Your task to perform on an android device: What's the weather going to be tomorrow? Image 0: 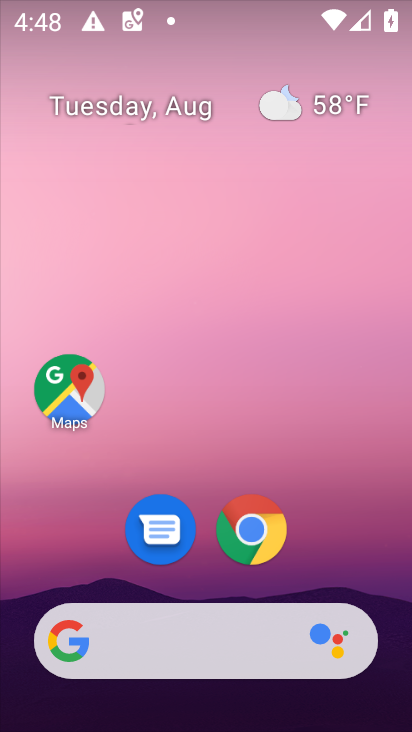
Step 0: drag from (208, 449) to (253, 102)
Your task to perform on an android device: What's the weather going to be tomorrow? Image 1: 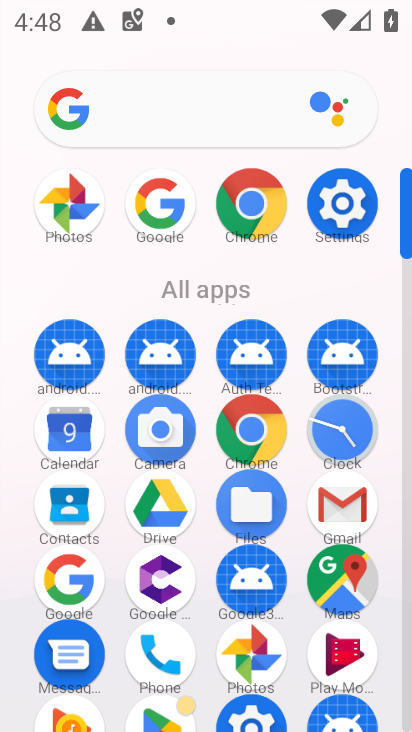
Step 1: click (165, 207)
Your task to perform on an android device: What's the weather going to be tomorrow? Image 2: 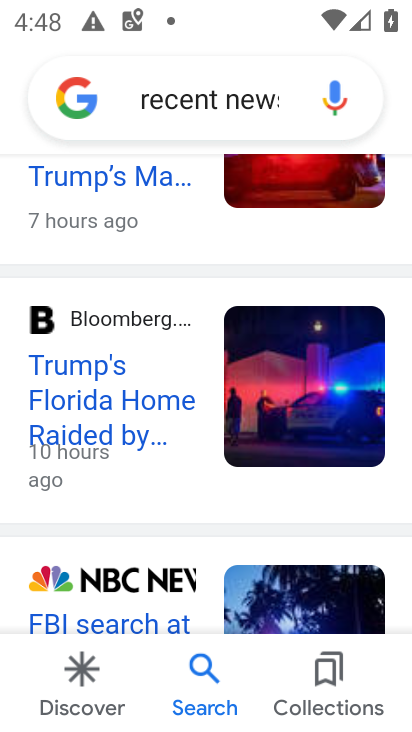
Step 2: click (226, 101)
Your task to perform on an android device: What's the weather going to be tomorrow? Image 3: 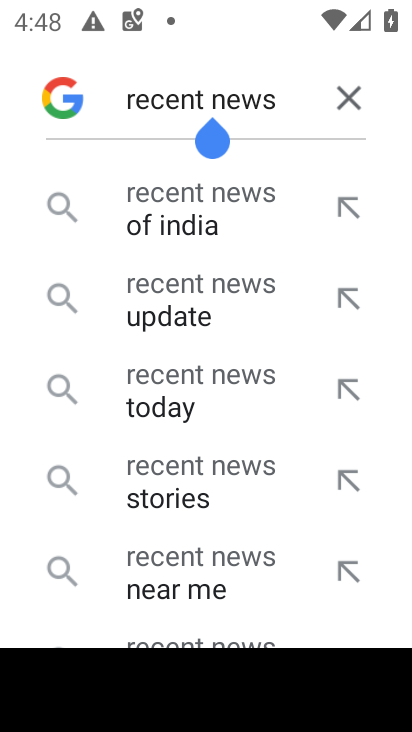
Step 3: click (339, 101)
Your task to perform on an android device: What's the weather going to be tomorrow? Image 4: 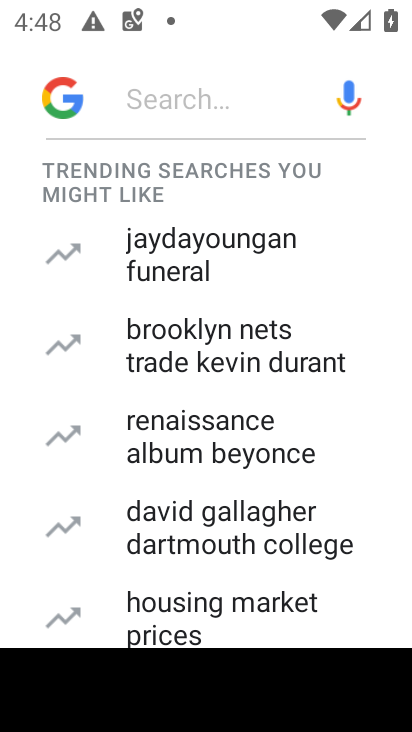
Step 4: type "weather"
Your task to perform on an android device: What's the weather going to be tomorrow? Image 5: 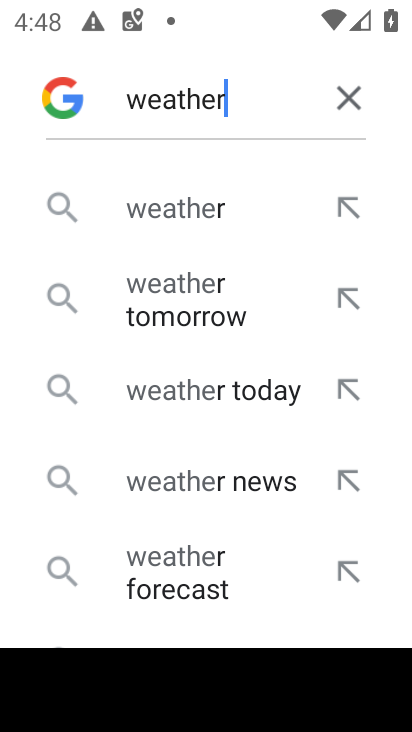
Step 5: type ""
Your task to perform on an android device: What's the weather going to be tomorrow? Image 6: 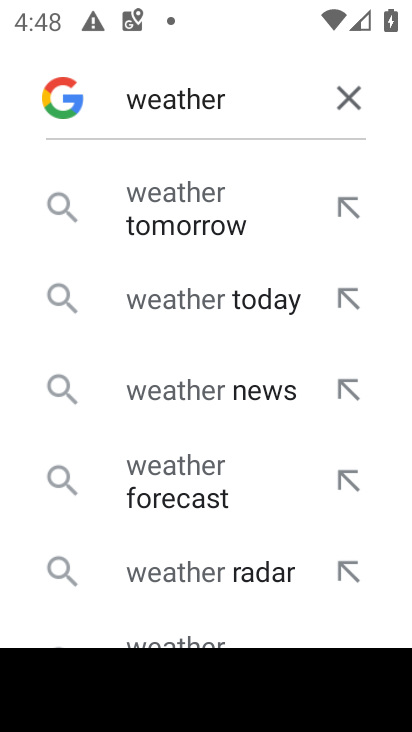
Step 6: click (179, 195)
Your task to perform on an android device: What's the weather going to be tomorrow? Image 7: 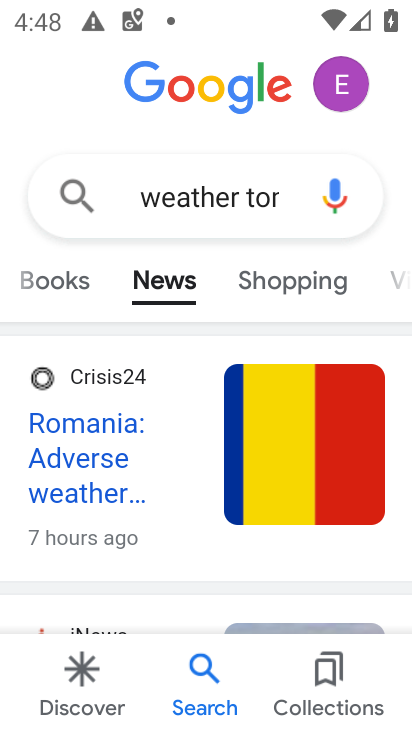
Step 7: drag from (66, 294) to (248, 285)
Your task to perform on an android device: What's the weather going to be tomorrow? Image 8: 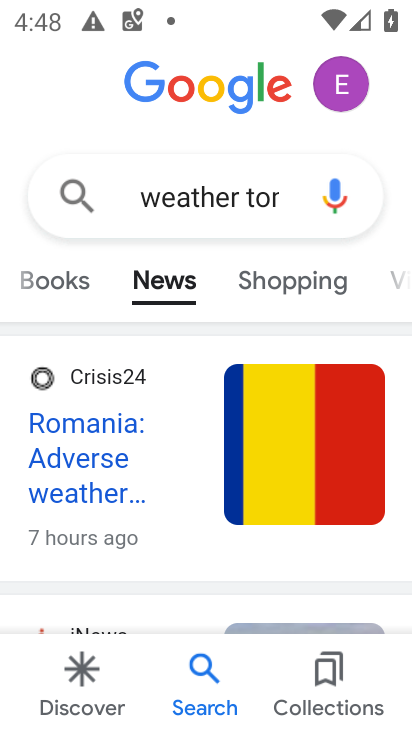
Step 8: drag from (88, 291) to (286, 260)
Your task to perform on an android device: What's the weather going to be tomorrow? Image 9: 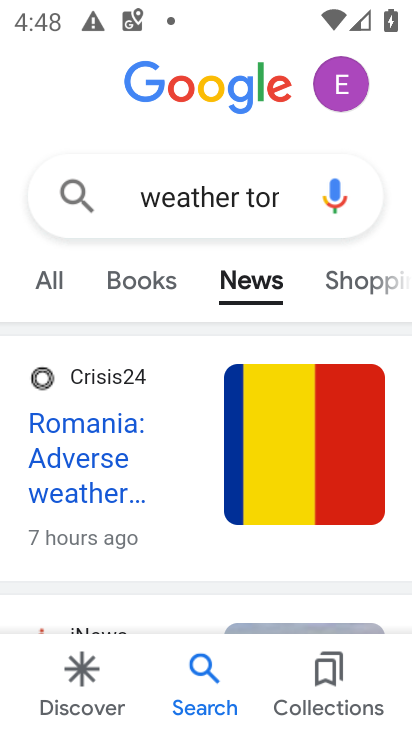
Step 9: click (29, 287)
Your task to perform on an android device: What's the weather going to be tomorrow? Image 10: 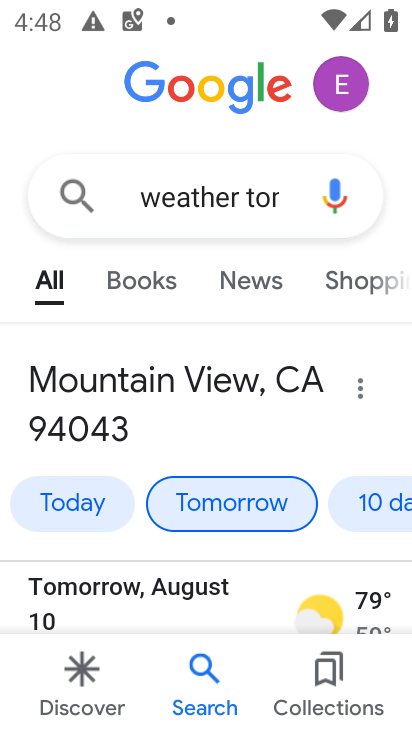
Step 10: task complete